Your task to perform on an android device: turn off sleep mode Image 0: 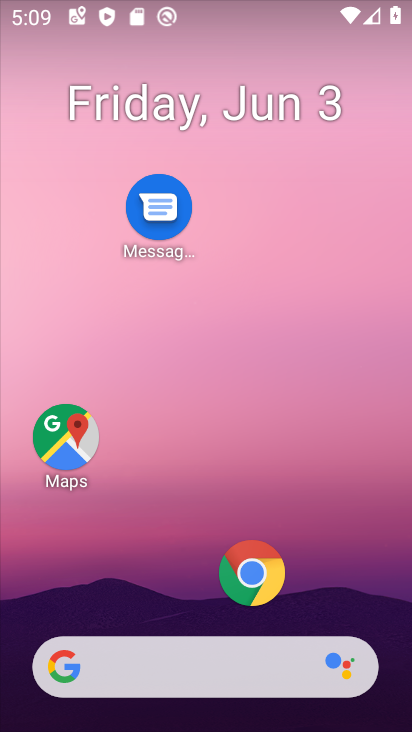
Step 0: drag from (193, 625) to (200, 149)
Your task to perform on an android device: turn off sleep mode Image 1: 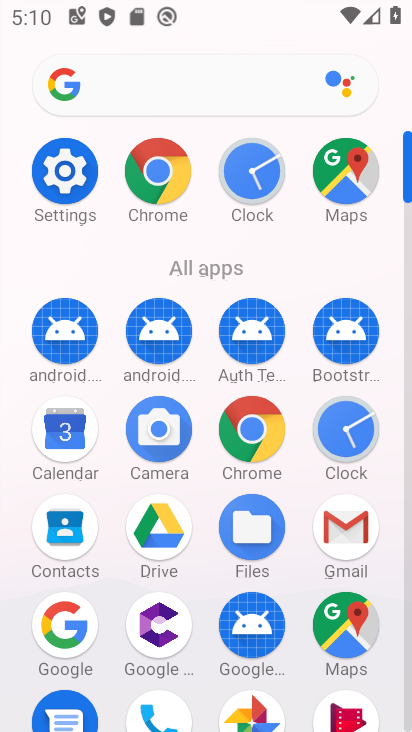
Step 1: task complete